Your task to perform on an android device: Open location settings Image 0: 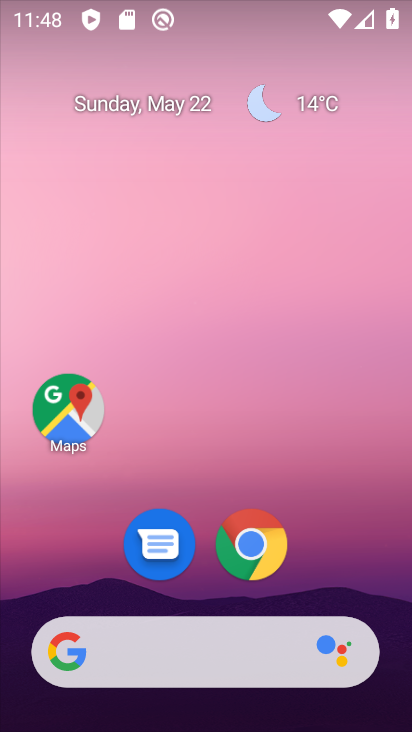
Step 0: drag from (275, 543) to (274, 105)
Your task to perform on an android device: Open location settings Image 1: 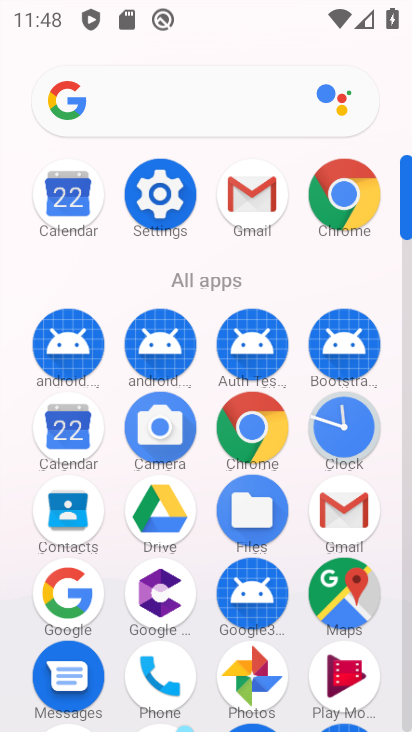
Step 1: click (161, 204)
Your task to perform on an android device: Open location settings Image 2: 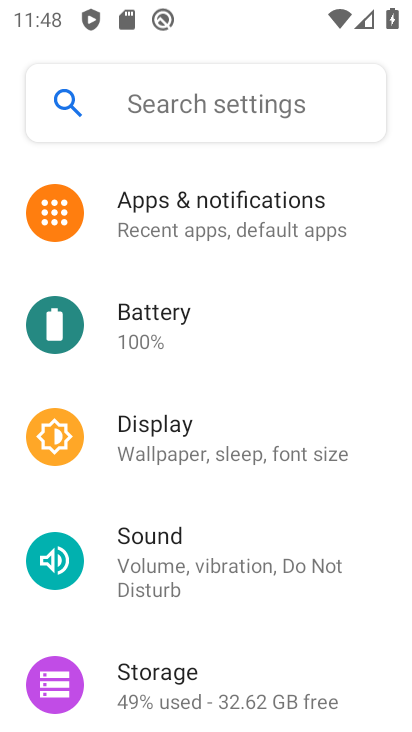
Step 2: drag from (204, 574) to (255, 142)
Your task to perform on an android device: Open location settings Image 3: 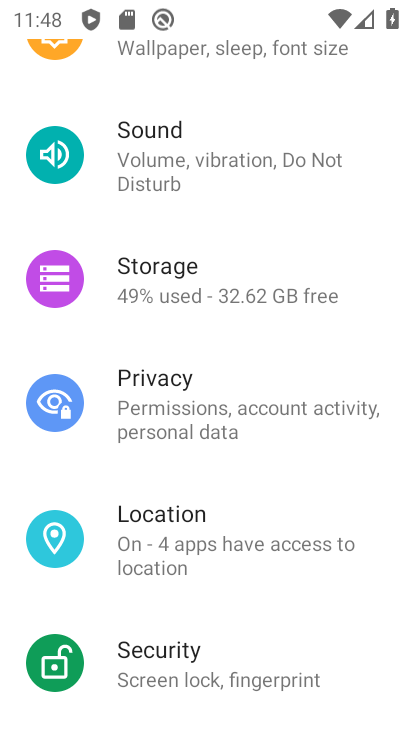
Step 3: click (208, 533)
Your task to perform on an android device: Open location settings Image 4: 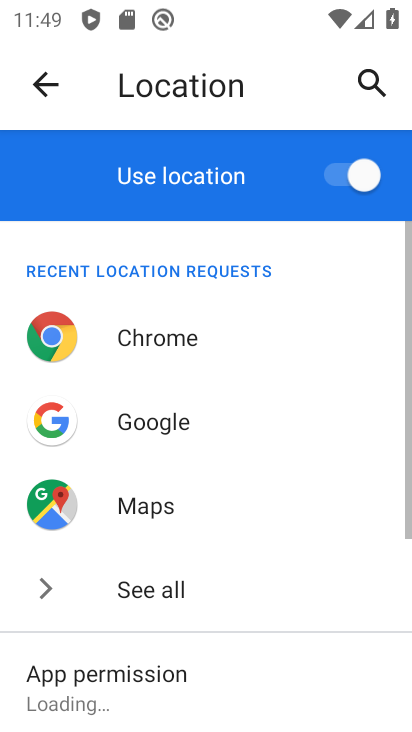
Step 4: task complete